Your task to perform on an android device: What is the recent news? Image 0: 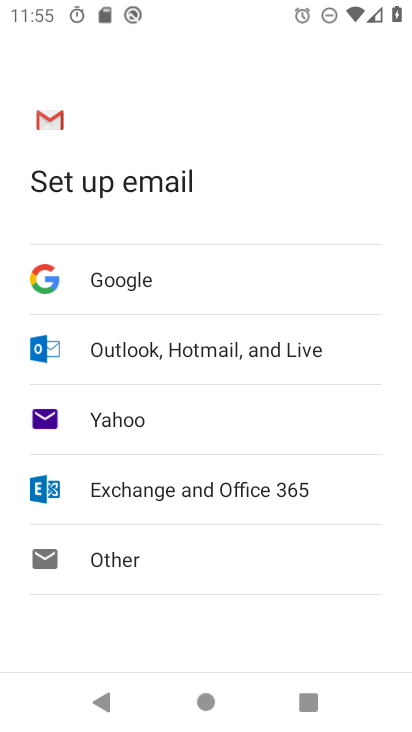
Step 0: press home button
Your task to perform on an android device: What is the recent news? Image 1: 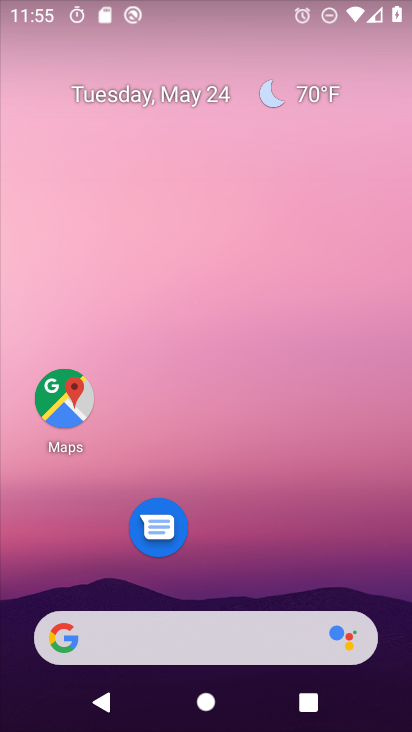
Step 1: drag from (260, 565) to (286, 95)
Your task to perform on an android device: What is the recent news? Image 2: 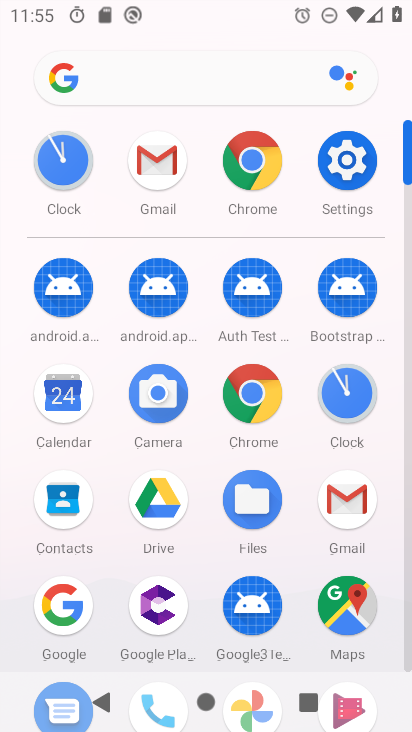
Step 2: click (69, 603)
Your task to perform on an android device: What is the recent news? Image 3: 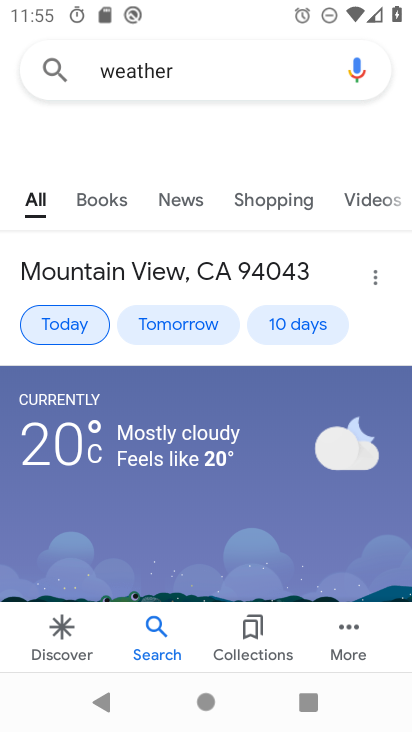
Step 3: click (253, 57)
Your task to perform on an android device: What is the recent news? Image 4: 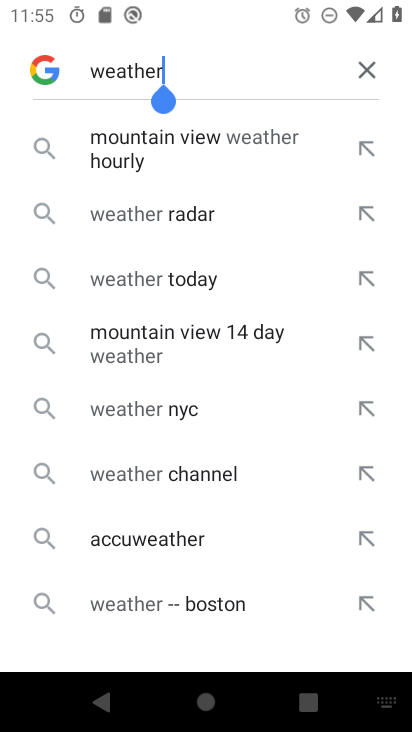
Step 4: click (362, 57)
Your task to perform on an android device: What is the recent news? Image 5: 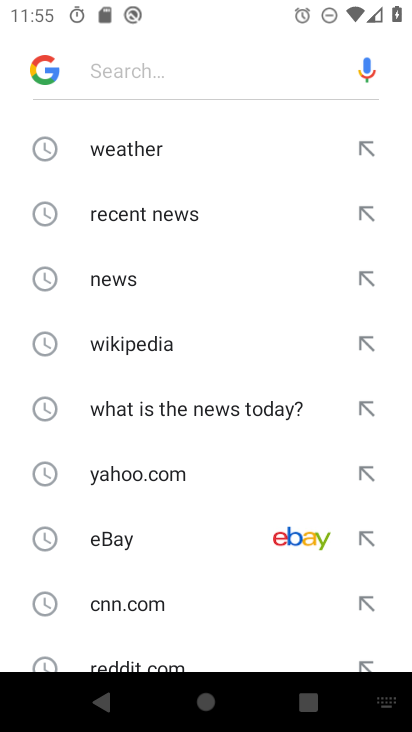
Step 5: click (167, 219)
Your task to perform on an android device: What is the recent news? Image 6: 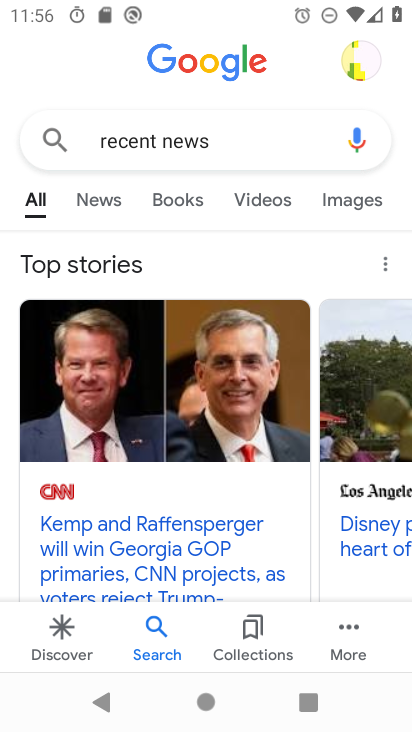
Step 6: task complete